Your task to perform on an android device: open a new tab in the chrome app Image 0: 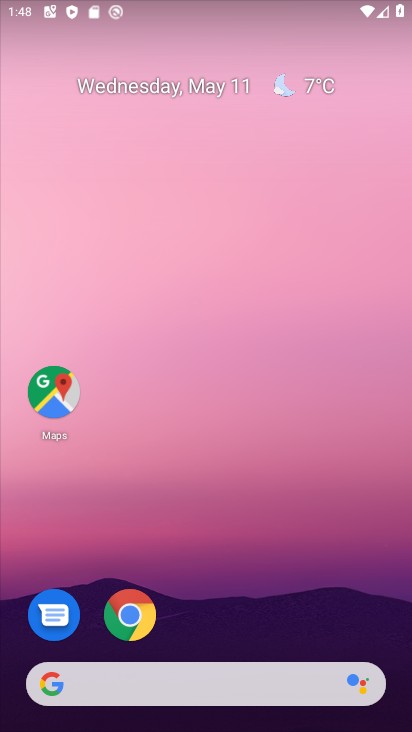
Step 0: click (130, 618)
Your task to perform on an android device: open a new tab in the chrome app Image 1: 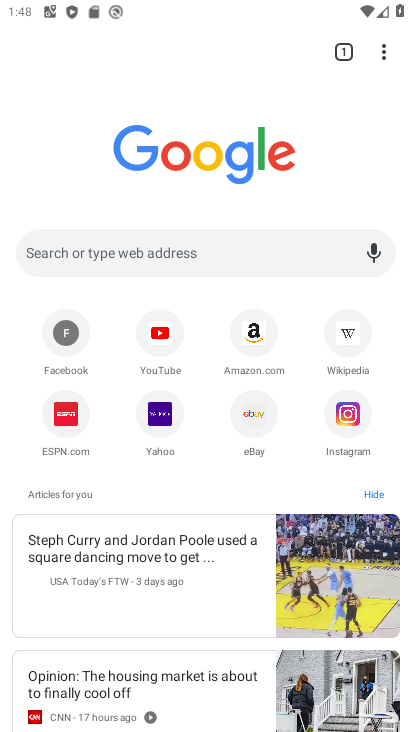
Step 1: task complete